Your task to perform on an android device: Go to eBay Image 0: 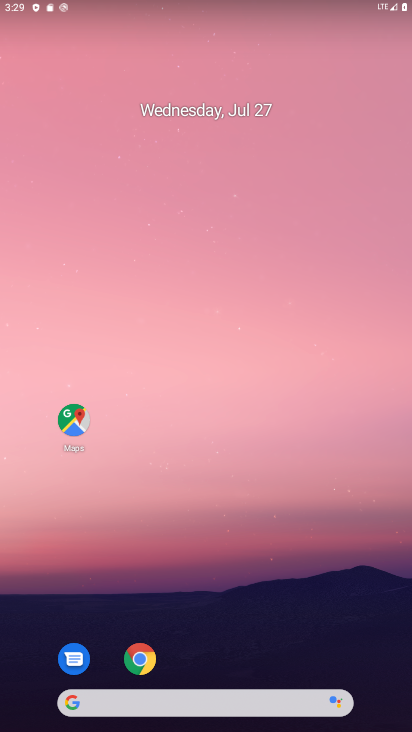
Step 0: click (126, 703)
Your task to perform on an android device: Go to eBay Image 1: 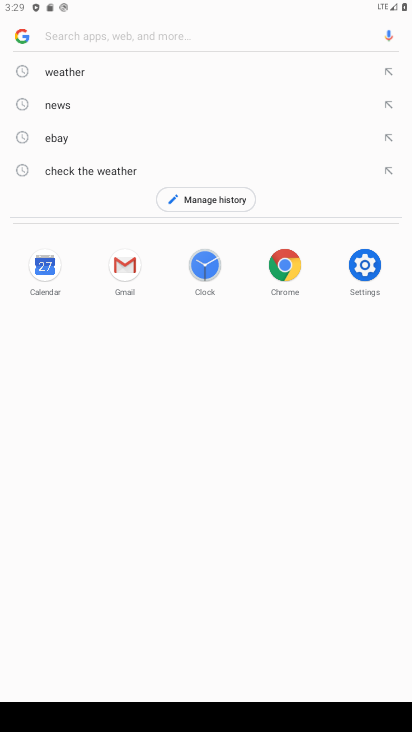
Step 1: click (47, 142)
Your task to perform on an android device: Go to eBay Image 2: 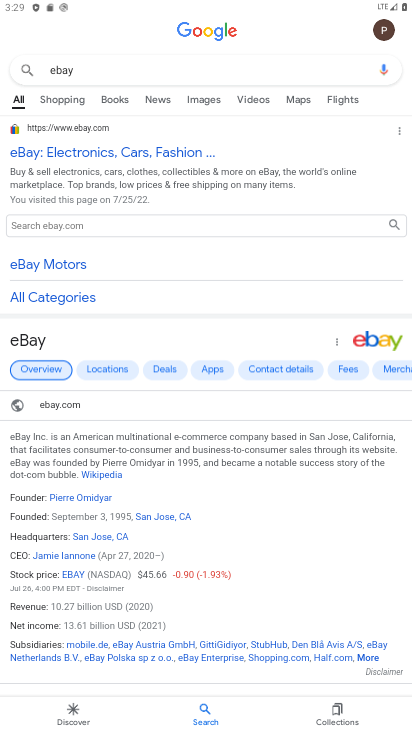
Step 2: click (39, 159)
Your task to perform on an android device: Go to eBay Image 3: 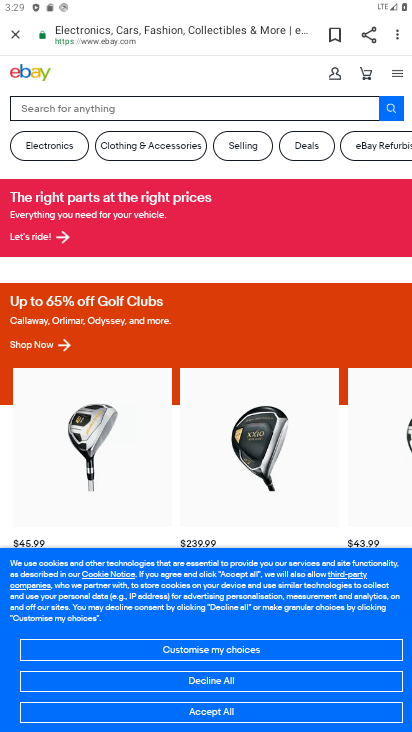
Step 3: task complete